Your task to perform on an android device: find which apps use the phone's location Image 0: 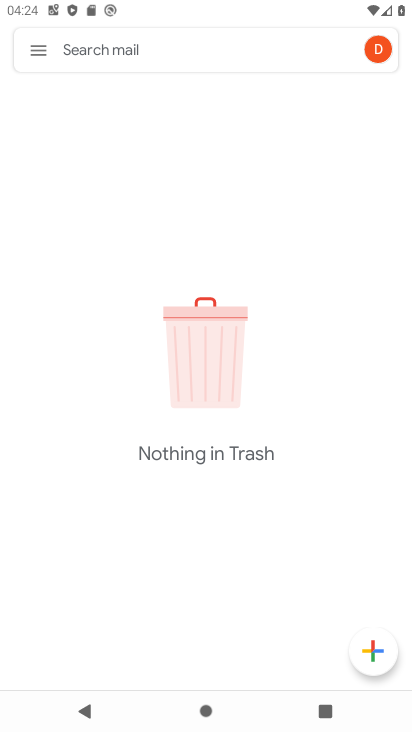
Step 0: press home button
Your task to perform on an android device: find which apps use the phone's location Image 1: 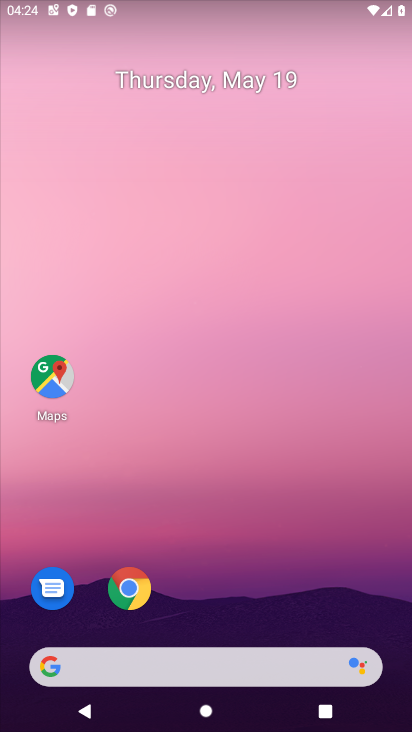
Step 1: drag from (232, 605) to (288, 137)
Your task to perform on an android device: find which apps use the phone's location Image 2: 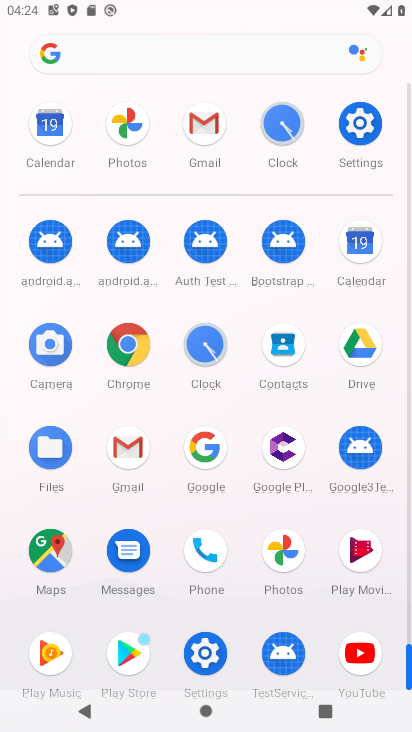
Step 2: click (212, 645)
Your task to perform on an android device: find which apps use the phone's location Image 3: 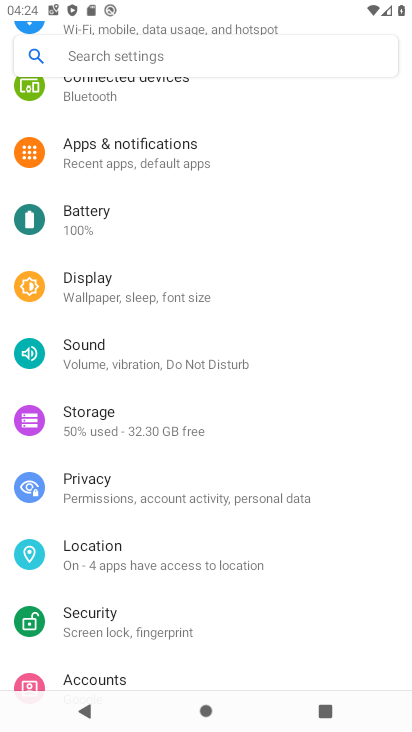
Step 3: click (134, 547)
Your task to perform on an android device: find which apps use the phone's location Image 4: 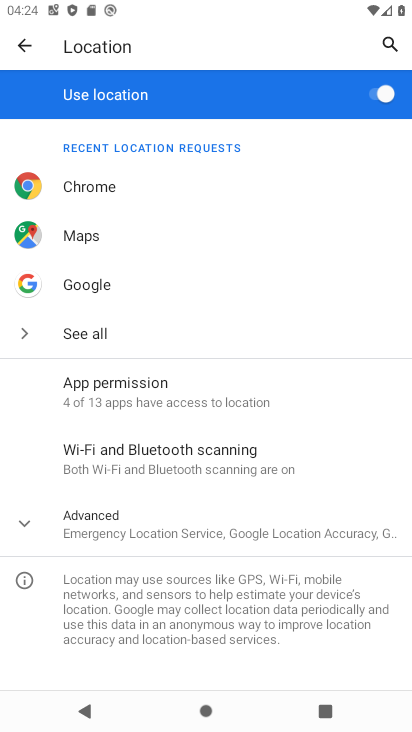
Step 4: click (150, 396)
Your task to perform on an android device: find which apps use the phone's location Image 5: 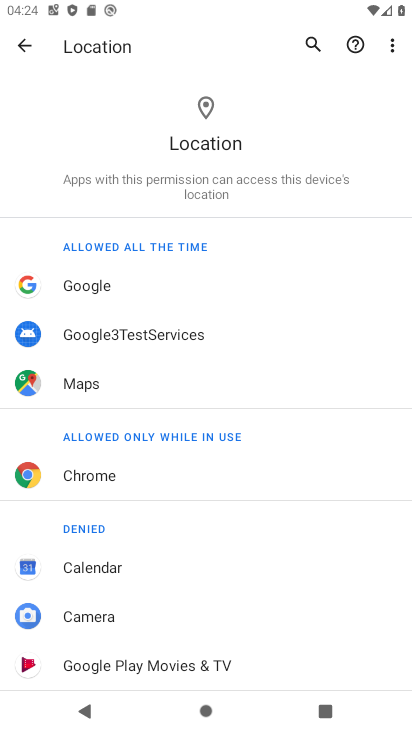
Step 5: task complete